Your task to perform on an android device: find which apps use the phone's location Image 0: 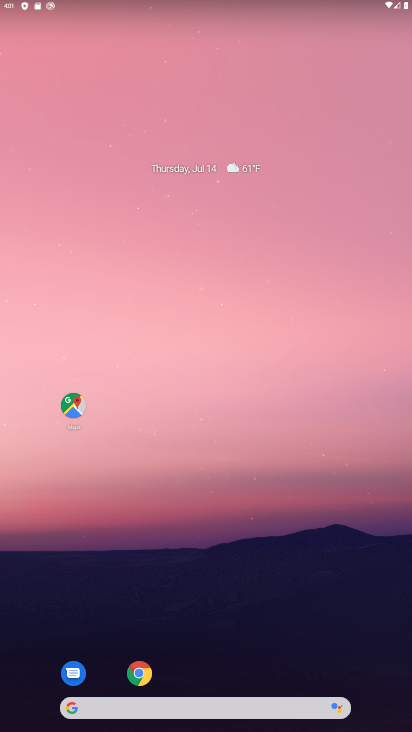
Step 0: drag from (217, 692) to (158, 88)
Your task to perform on an android device: find which apps use the phone's location Image 1: 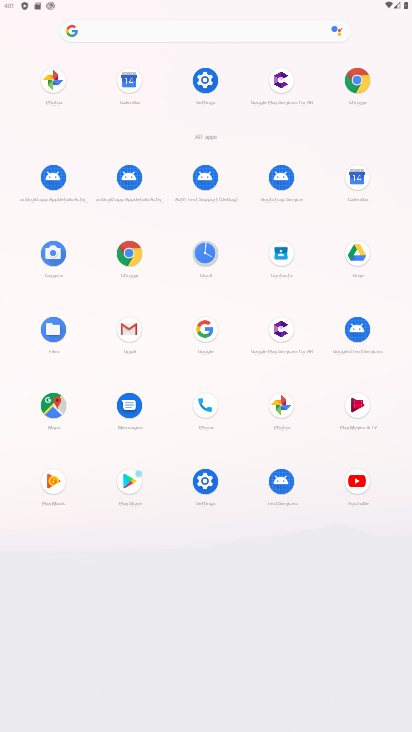
Step 1: click (210, 82)
Your task to perform on an android device: find which apps use the phone's location Image 2: 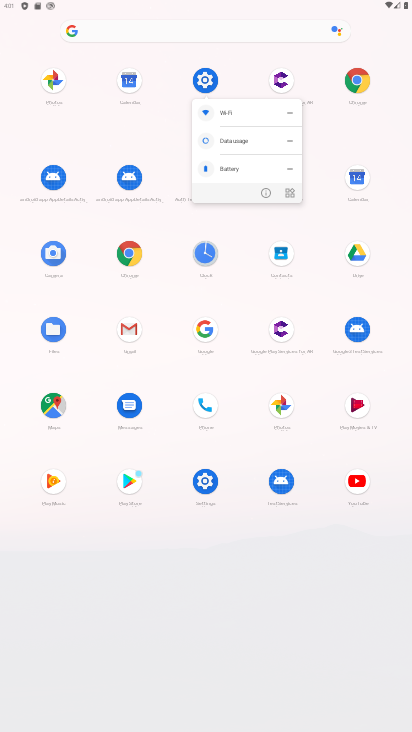
Step 2: click (207, 89)
Your task to perform on an android device: find which apps use the phone's location Image 3: 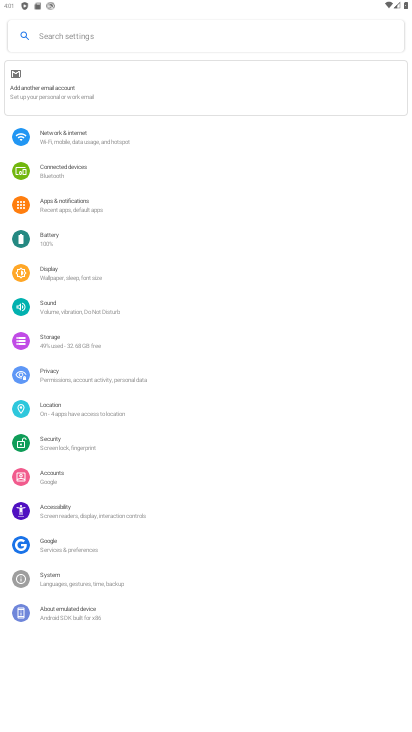
Step 3: click (55, 406)
Your task to perform on an android device: find which apps use the phone's location Image 4: 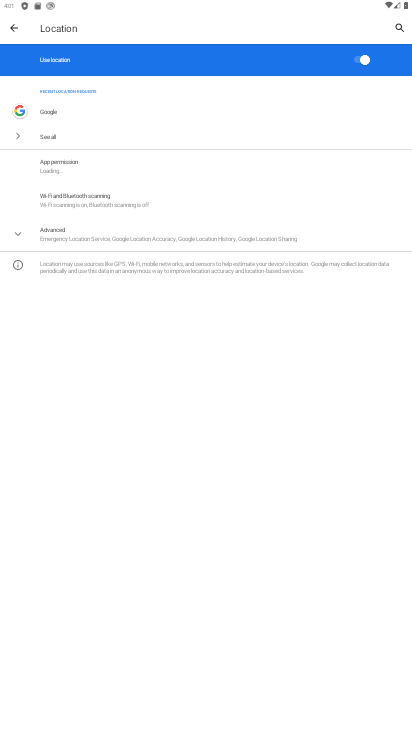
Step 4: click (73, 234)
Your task to perform on an android device: find which apps use the phone's location Image 5: 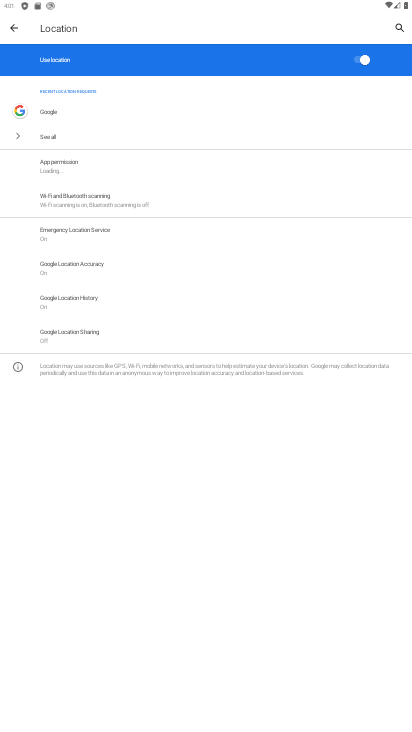
Step 5: click (46, 170)
Your task to perform on an android device: find which apps use the phone's location Image 6: 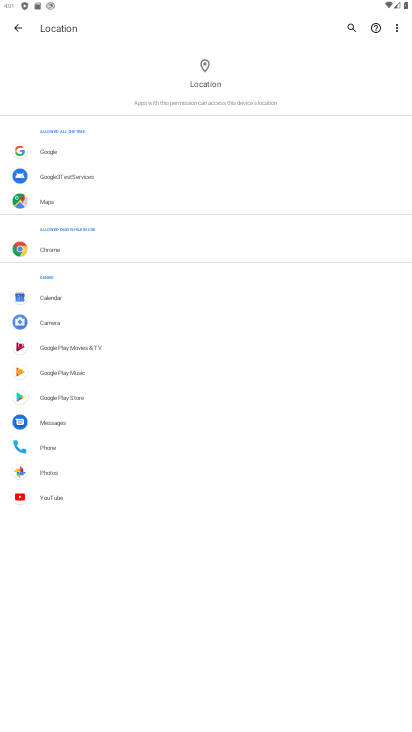
Step 6: task complete